Your task to perform on an android device: open sync settings in chrome Image 0: 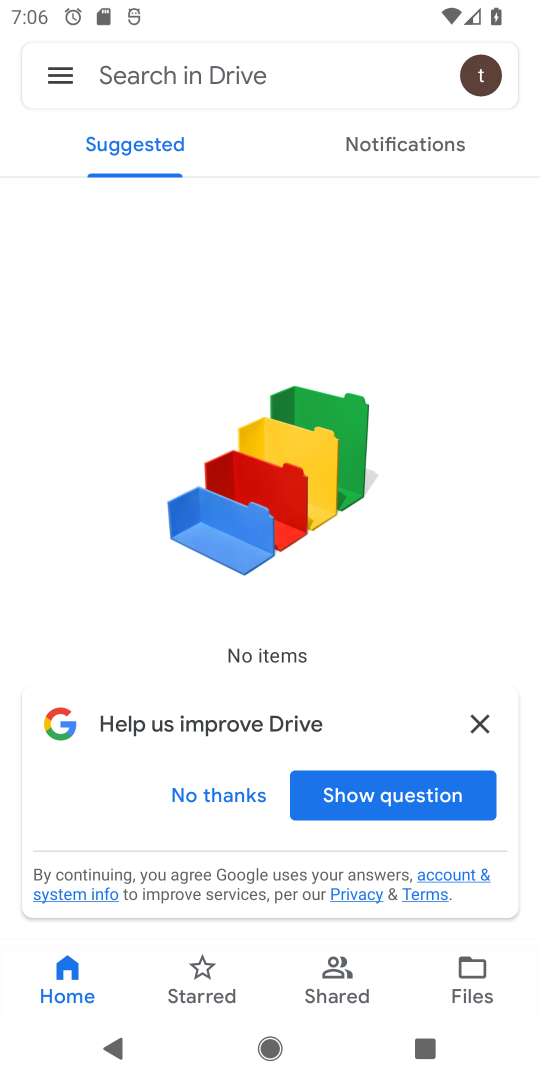
Step 0: press home button
Your task to perform on an android device: open sync settings in chrome Image 1: 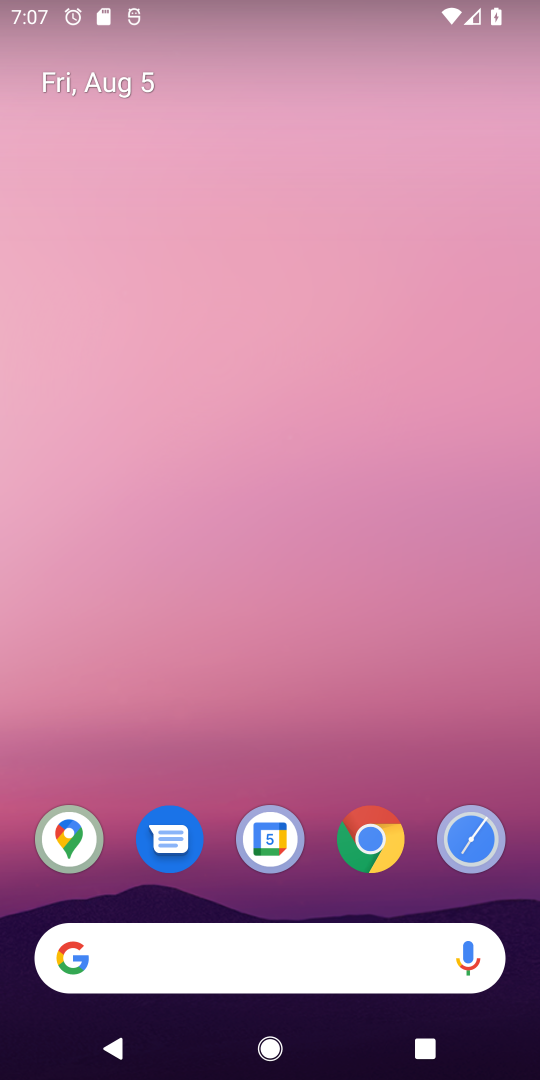
Step 1: click (368, 818)
Your task to perform on an android device: open sync settings in chrome Image 2: 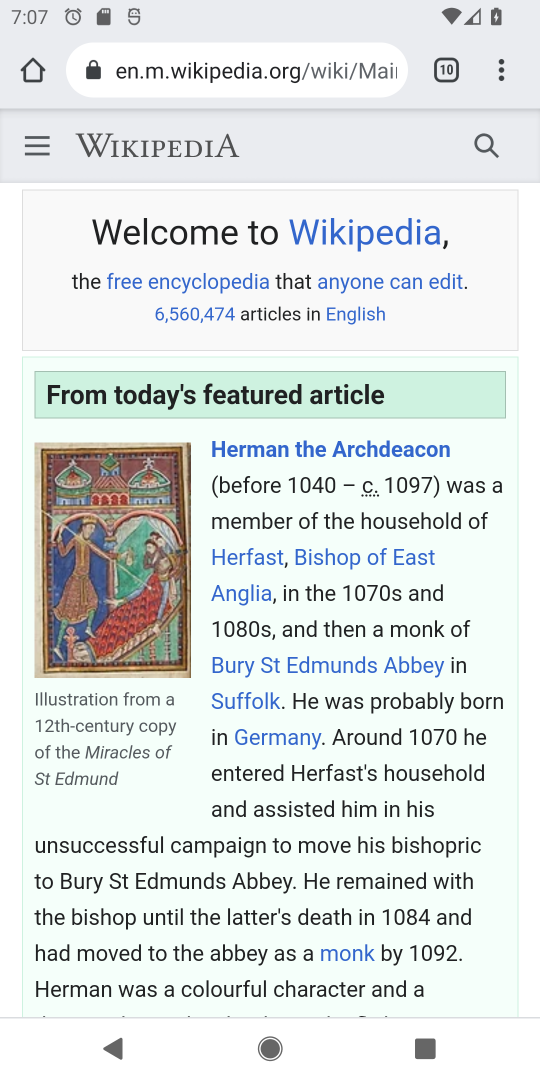
Step 2: click (494, 56)
Your task to perform on an android device: open sync settings in chrome Image 3: 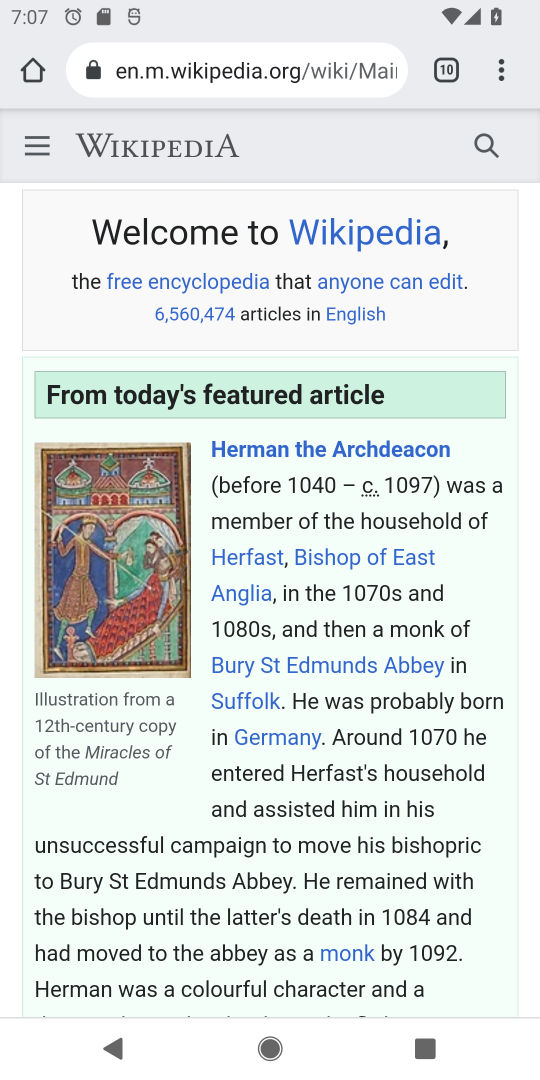
Step 3: drag from (494, 56) to (286, 830)
Your task to perform on an android device: open sync settings in chrome Image 4: 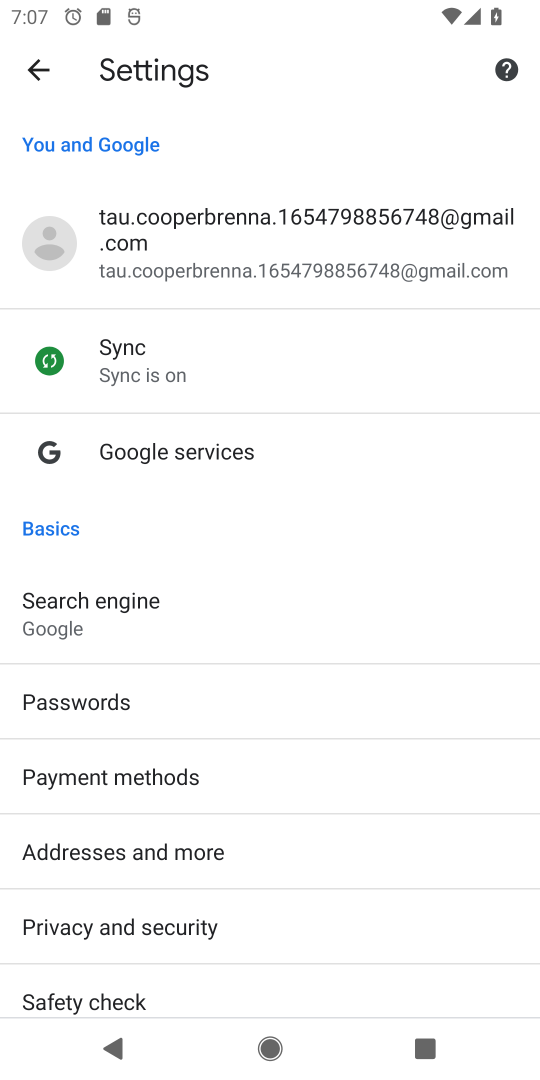
Step 4: click (242, 344)
Your task to perform on an android device: open sync settings in chrome Image 5: 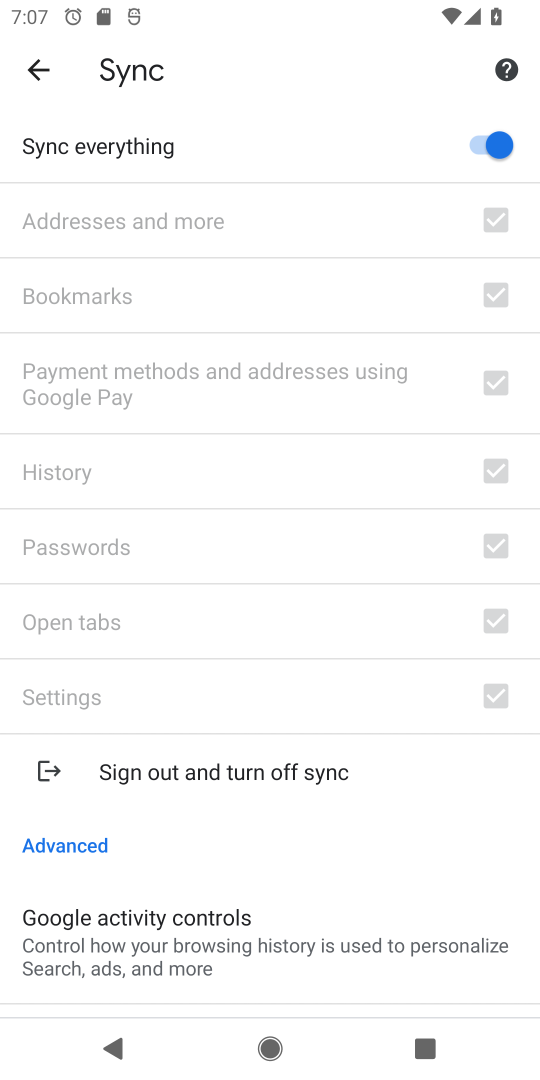
Step 5: task complete